Your task to perform on an android device: change notification settings in the gmail app Image 0: 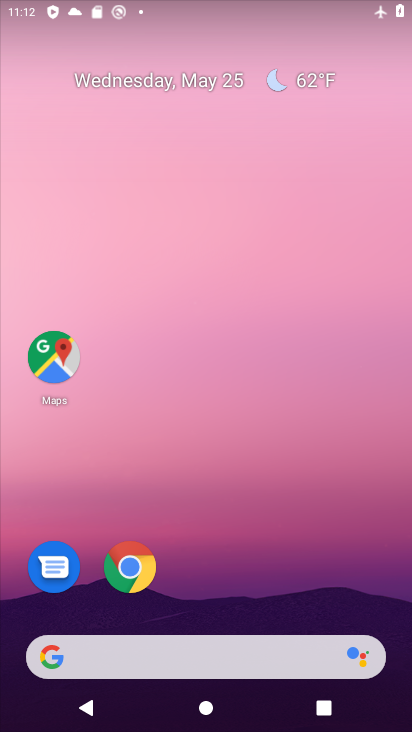
Step 0: drag from (345, 601) to (279, 0)
Your task to perform on an android device: change notification settings in the gmail app Image 1: 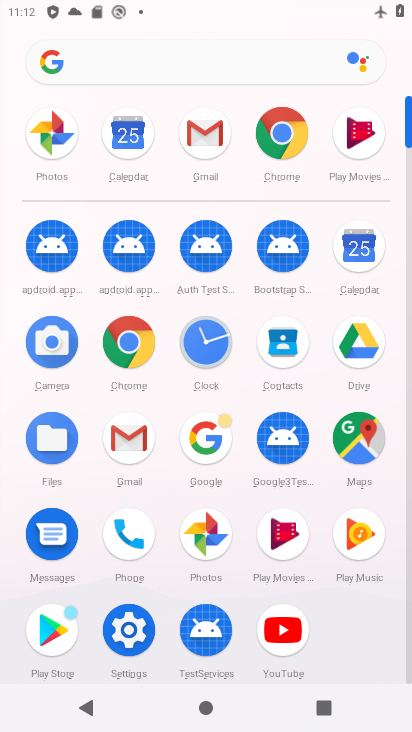
Step 1: click (115, 412)
Your task to perform on an android device: change notification settings in the gmail app Image 2: 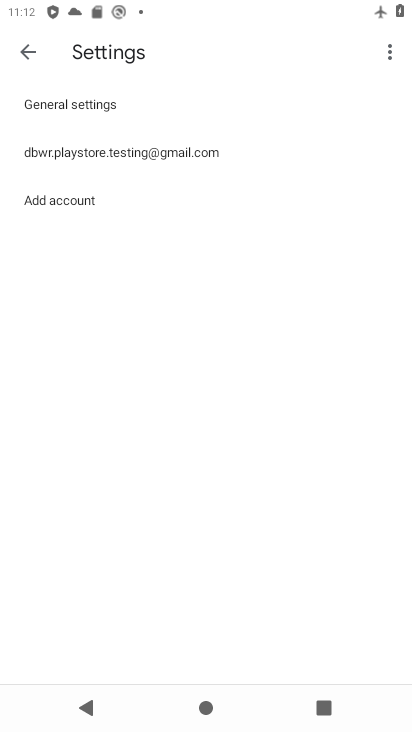
Step 2: click (261, 161)
Your task to perform on an android device: change notification settings in the gmail app Image 3: 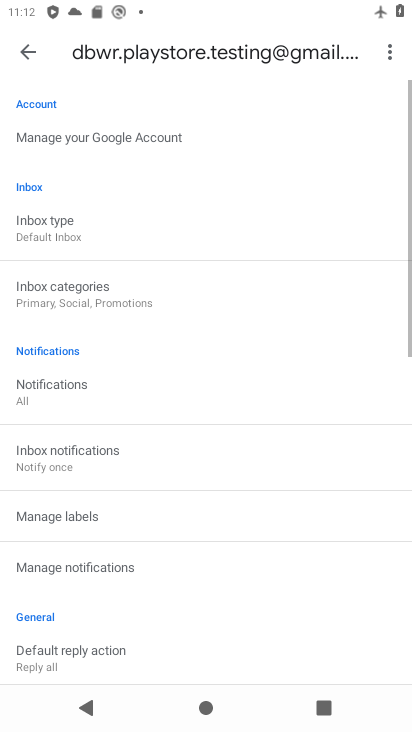
Step 3: click (44, 387)
Your task to perform on an android device: change notification settings in the gmail app Image 4: 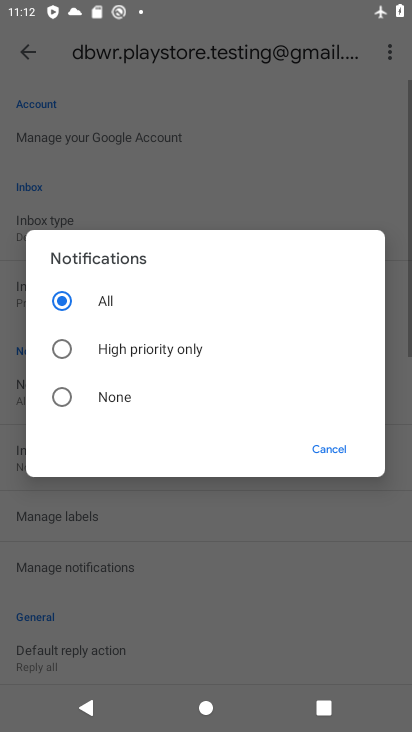
Step 4: click (87, 404)
Your task to perform on an android device: change notification settings in the gmail app Image 5: 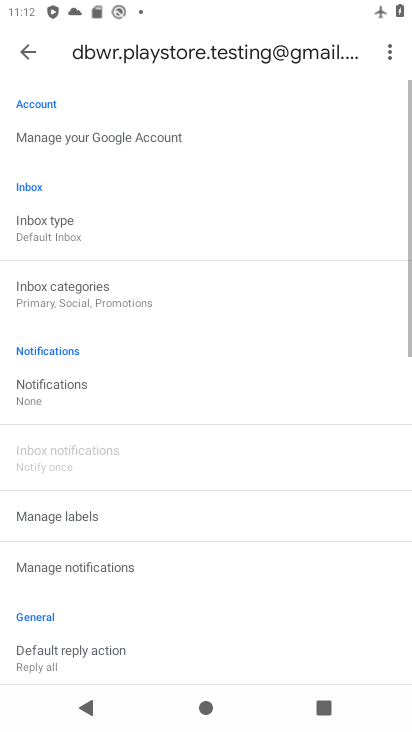
Step 5: task complete